Your task to perform on an android device: What is the recent news? Image 0: 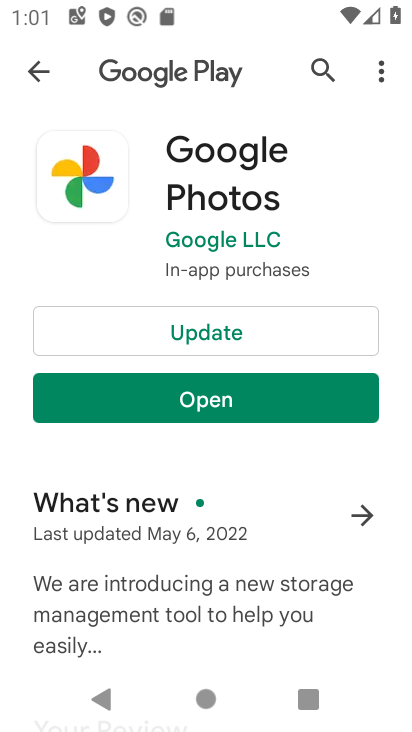
Step 0: press home button
Your task to perform on an android device: What is the recent news? Image 1: 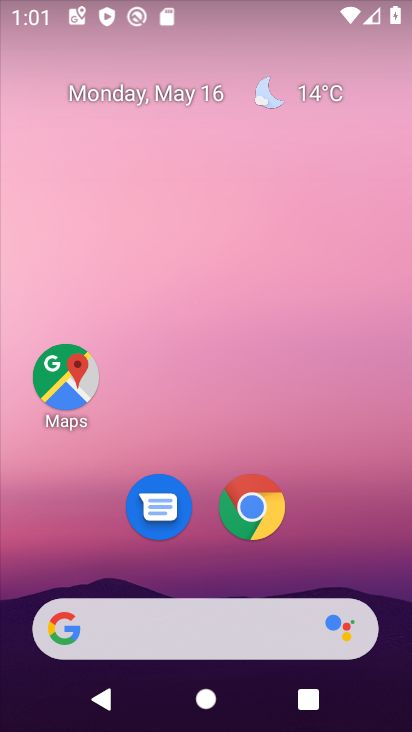
Step 1: click (146, 626)
Your task to perform on an android device: What is the recent news? Image 2: 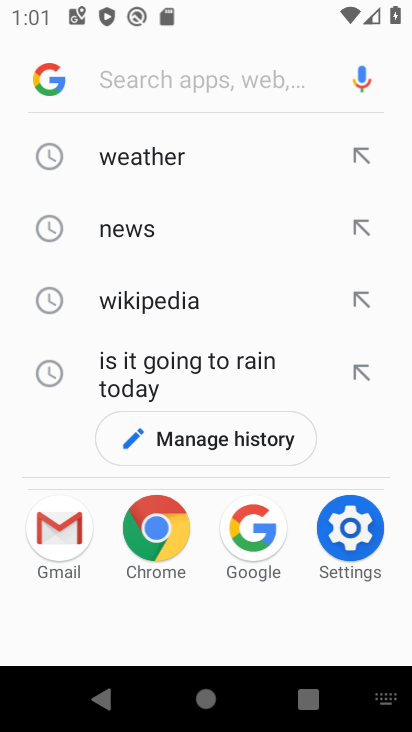
Step 2: click (134, 238)
Your task to perform on an android device: What is the recent news? Image 3: 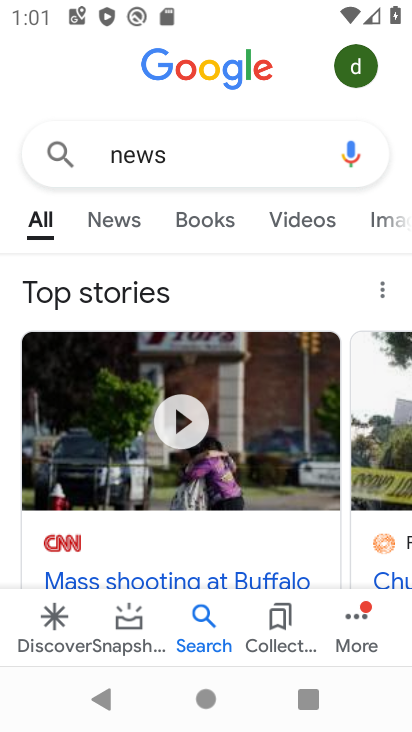
Step 3: task complete